Your task to perform on an android device: Search for "sony triple a" on ebay, select the first entry, add it to the cart, then select checkout. Image 0: 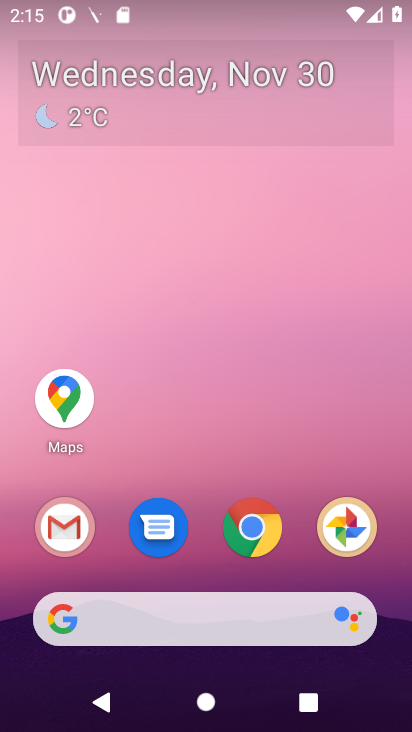
Step 0: click (251, 548)
Your task to perform on an android device: Search for "sony triple a" on ebay, select the first entry, add it to the cart, then select checkout. Image 1: 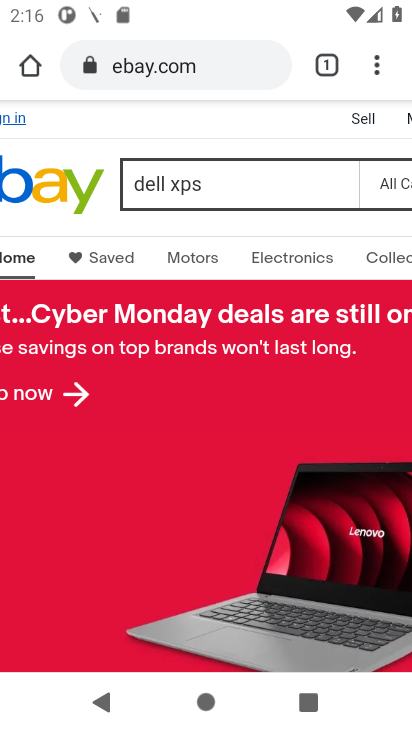
Step 1: task complete